Your task to perform on an android device: turn off priority inbox in the gmail app Image 0: 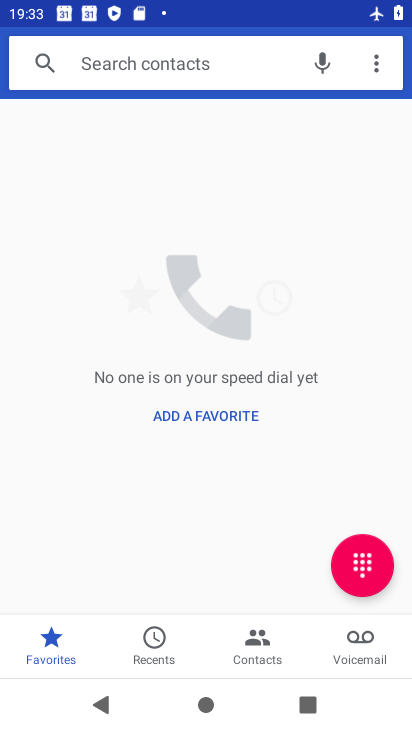
Step 0: press home button
Your task to perform on an android device: turn off priority inbox in the gmail app Image 1: 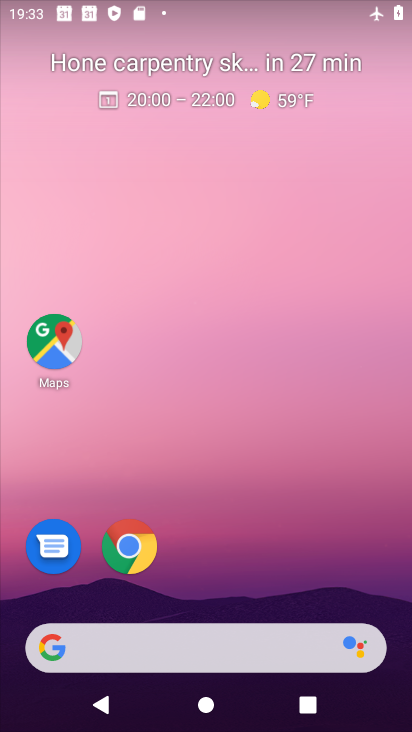
Step 1: drag from (305, 501) to (252, 178)
Your task to perform on an android device: turn off priority inbox in the gmail app Image 2: 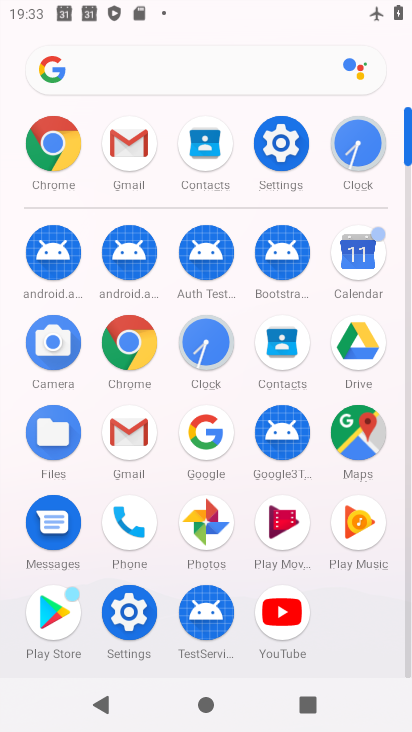
Step 2: click (133, 439)
Your task to perform on an android device: turn off priority inbox in the gmail app Image 3: 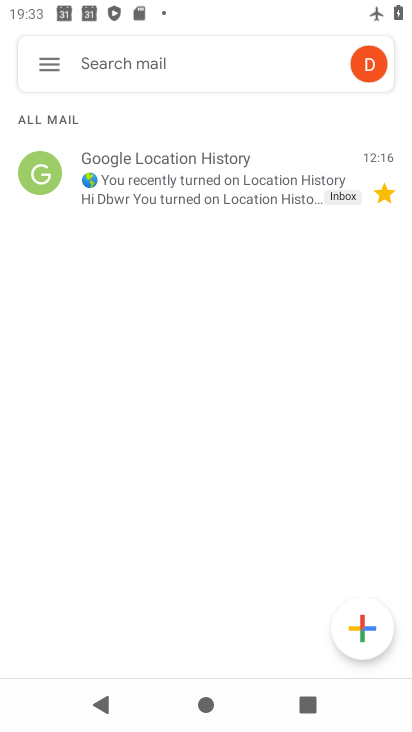
Step 3: click (51, 75)
Your task to perform on an android device: turn off priority inbox in the gmail app Image 4: 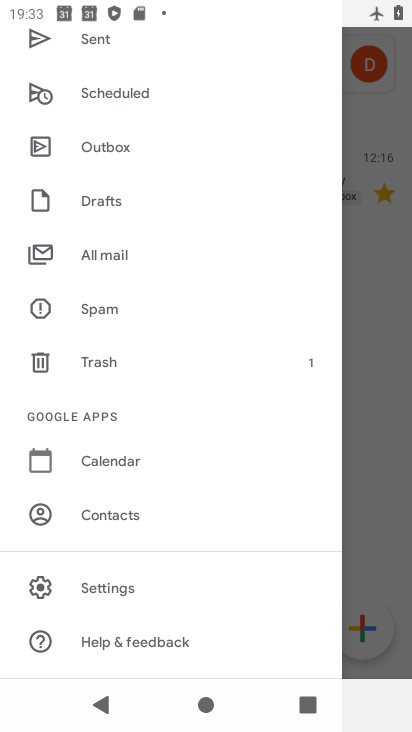
Step 4: click (146, 586)
Your task to perform on an android device: turn off priority inbox in the gmail app Image 5: 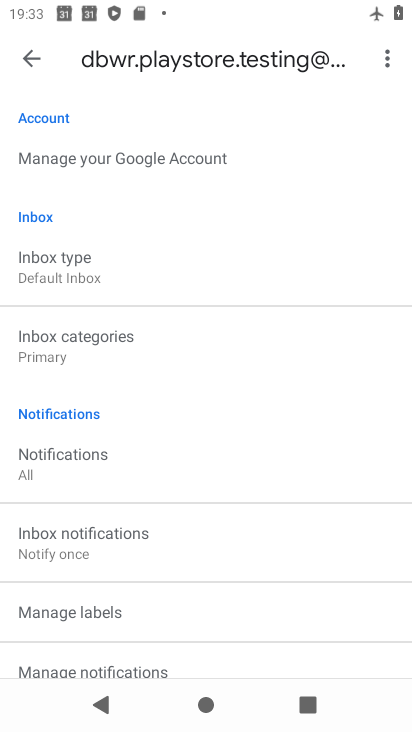
Step 5: click (155, 257)
Your task to perform on an android device: turn off priority inbox in the gmail app Image 6: 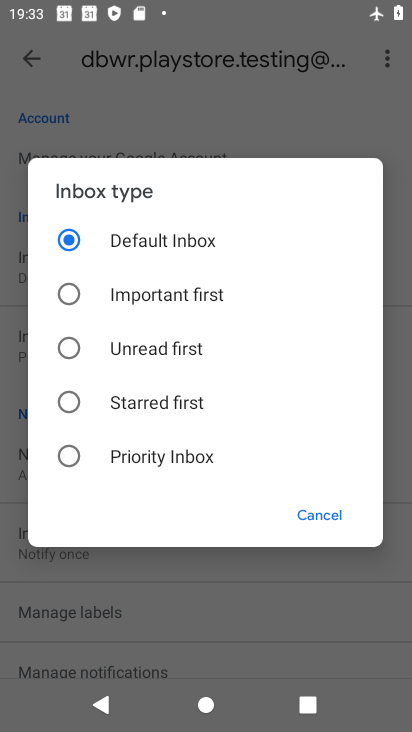
Step 6: task complete